Your task to perform on an android device: see creations saved in the google photos Image 0: 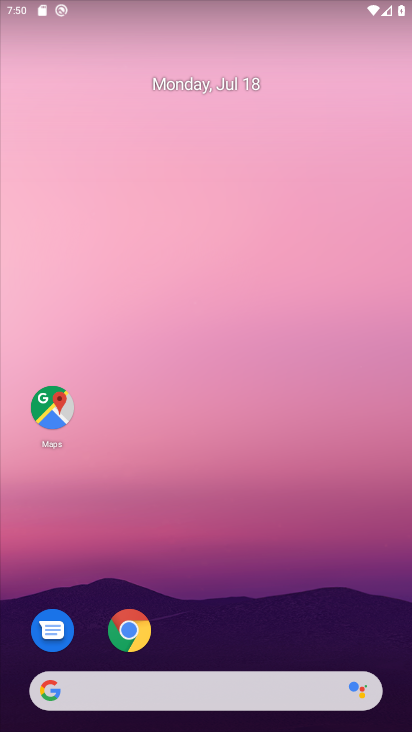
Step 0: drag from (257, 471) to (233, 260)
Your task to perform on an android device: see creations saved in the google photos Image 1: 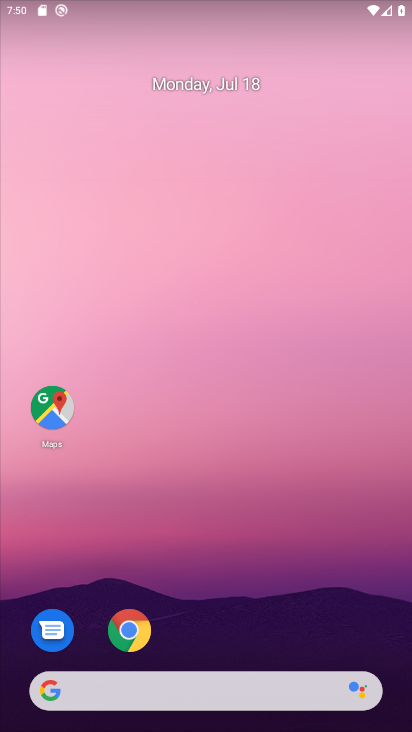
Step 1: drag from (258, 656) to (221, 18)
Your task to perform on an android device: see creations saved in the google photos Image 2: 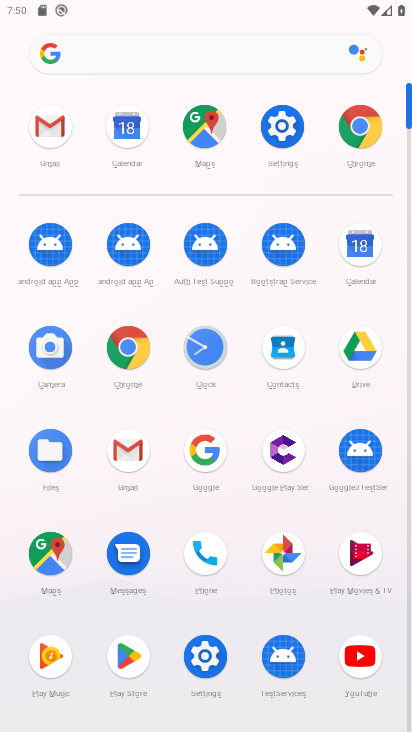
Step 2: click (286, 570)
Your task to perform on an android device: see creations saved in the google photos Image 3: 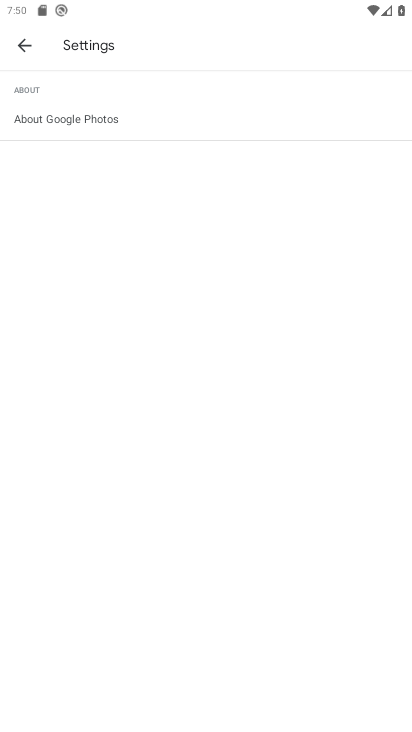
Step 3: click (24, 55)
Your task to perform on an android device: see creations saved in the google photos Image 4: 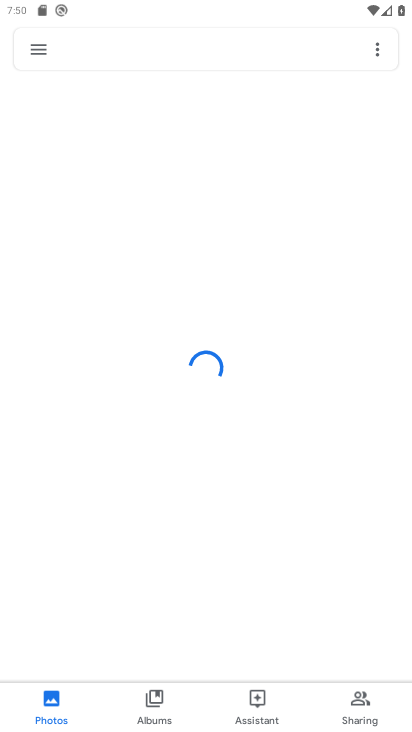
Step 4: click (153, 697)
Your task to perform on an android device: see creations saved in the google photos Image 5: 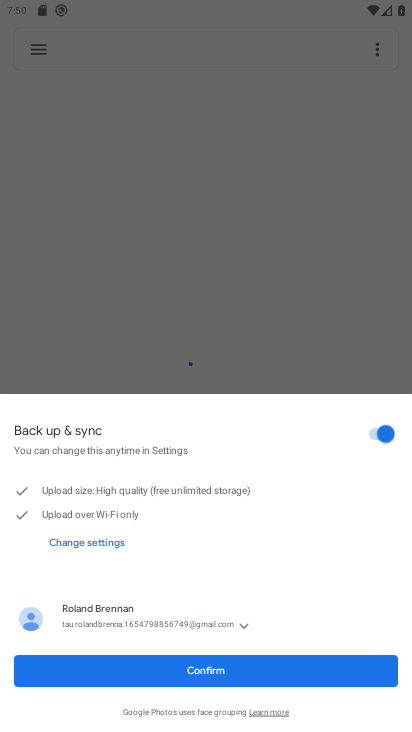
Step 5: click (153, 697)
Your task to perform on an android device: see creations saved in the google photos Image 6: 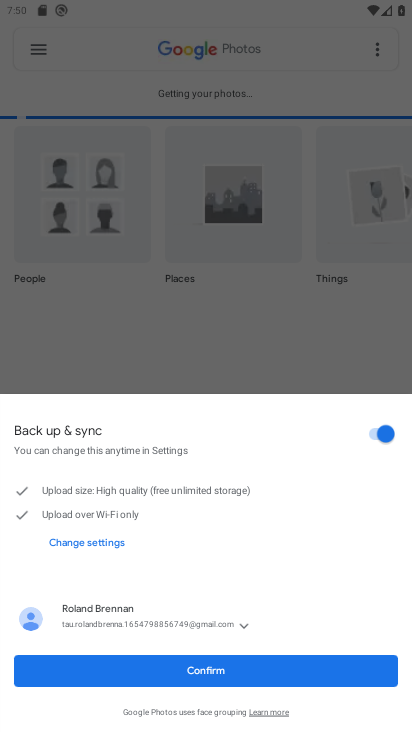
Step 6: click (222, 678)
Your task to perform on an android device: see creations saved in the google photos Image 7: 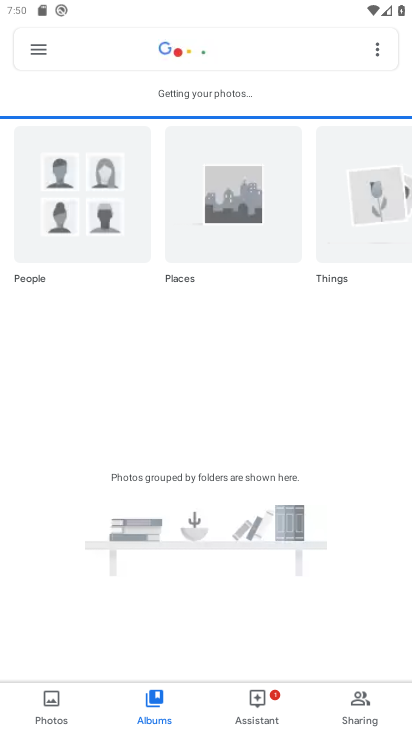
Step 7: click (177, 704)
Your task to perform on an android device: see creations saved in the google photos Image 8: 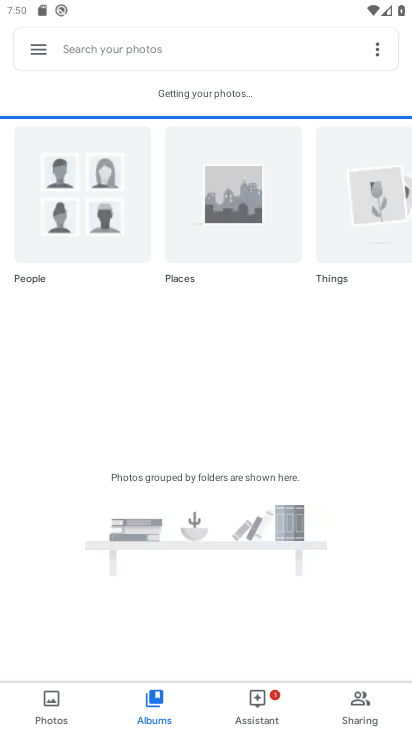
Step 8: task complete